Your task to perform on an android device: set the timer Image 0: 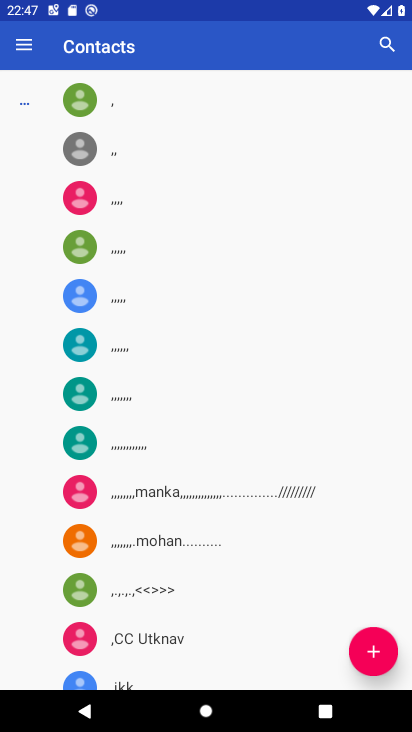
Step 0: press home button
Your task to perform on an android device: set the timer Image 1: 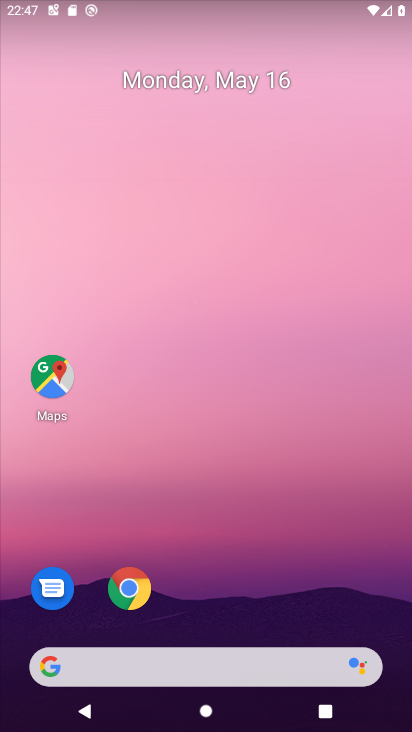
Step 1: drag from (213, 589) to (266, 8)
Your task to perform on an android device: set the timer Image 2: 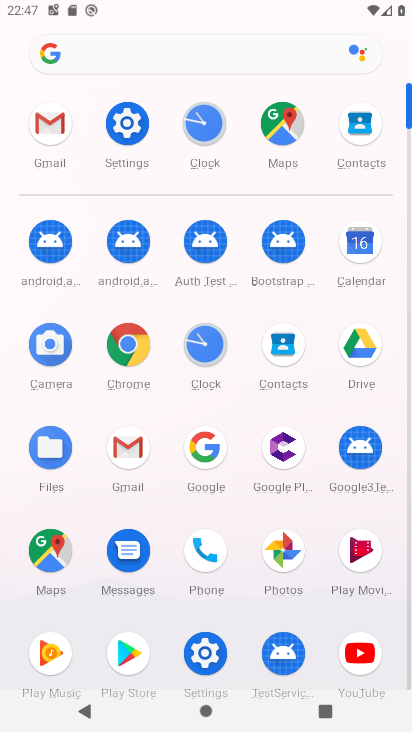
Step 2: click (203, 118)
Your task to perform on an android device: set the timer Image 3: 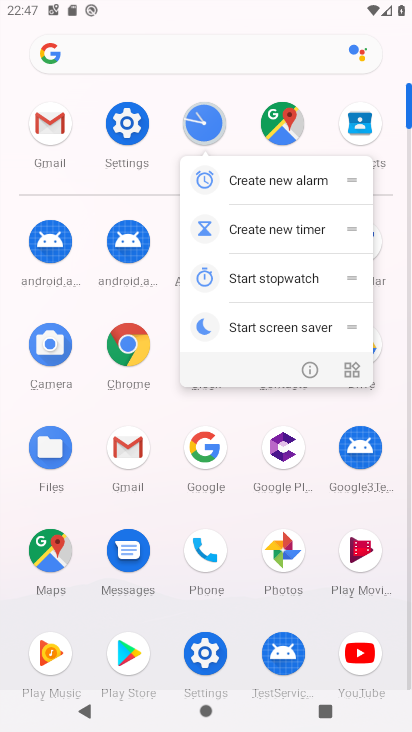
Step 3: click (202, 114)
Your task to perform on an android device: set the timer Image 4: 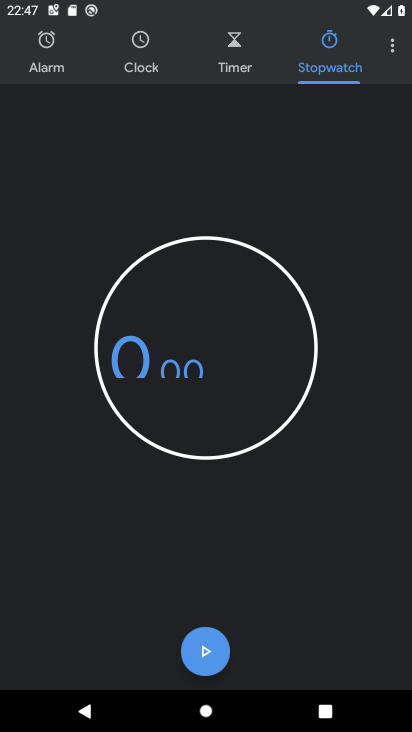
Step 4: click (235, 45)
Your task to perform on an android device: set the timer Image 5: 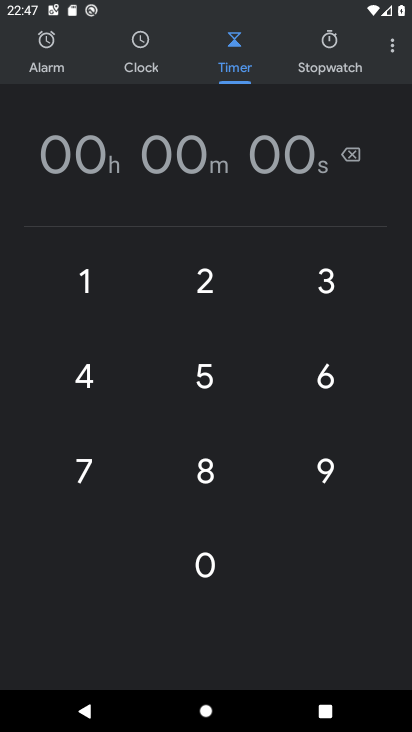
Step 5: click (85, 281)
Your task to perform on an android device: set the timer Image 6: 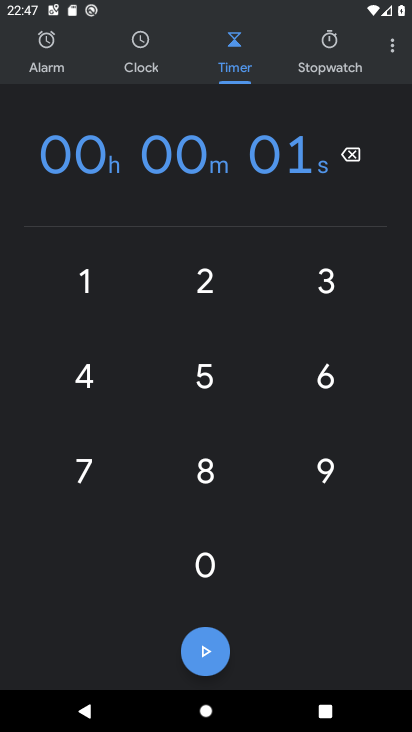
Step 6: click (197, 559)
Your task to perform on an android device: set the timer Image 7: 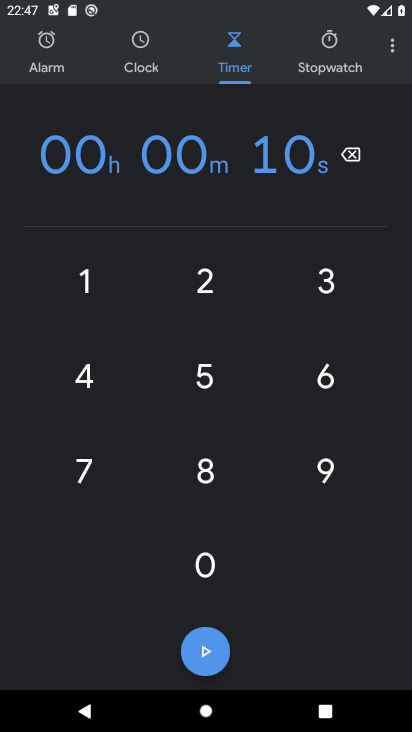
Step 7: click (197, 559)
Your task to perform on an android device: set the timer Image 8: 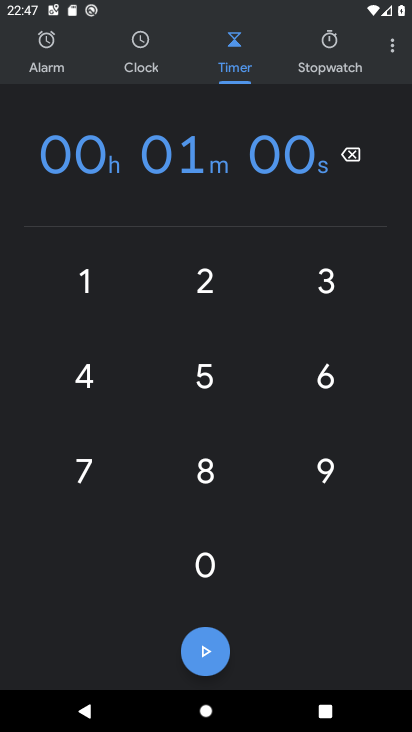
Step 8: click (197, 559)
Your task to perform on an android device: set the timer Image 9: 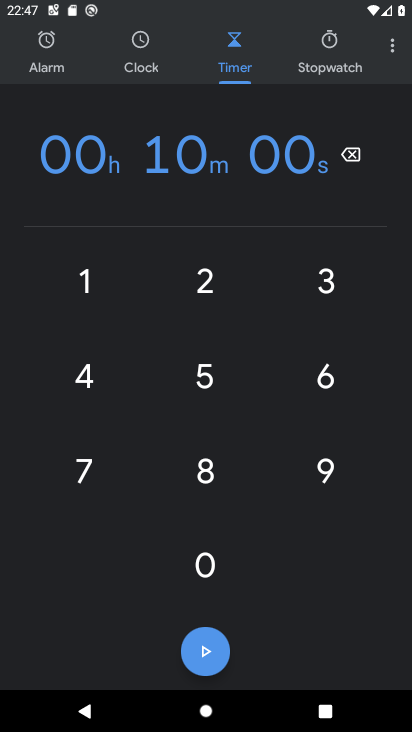
Step 9: click (204, 645)
Your task to perform on an android device: set the timer Image 10: 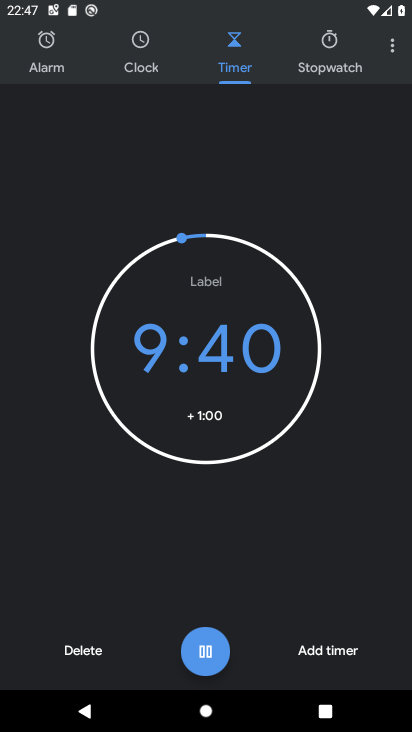
Step 10: task complete